Your task to perform on an android device: Do I have any events tomorrow? Image 0: 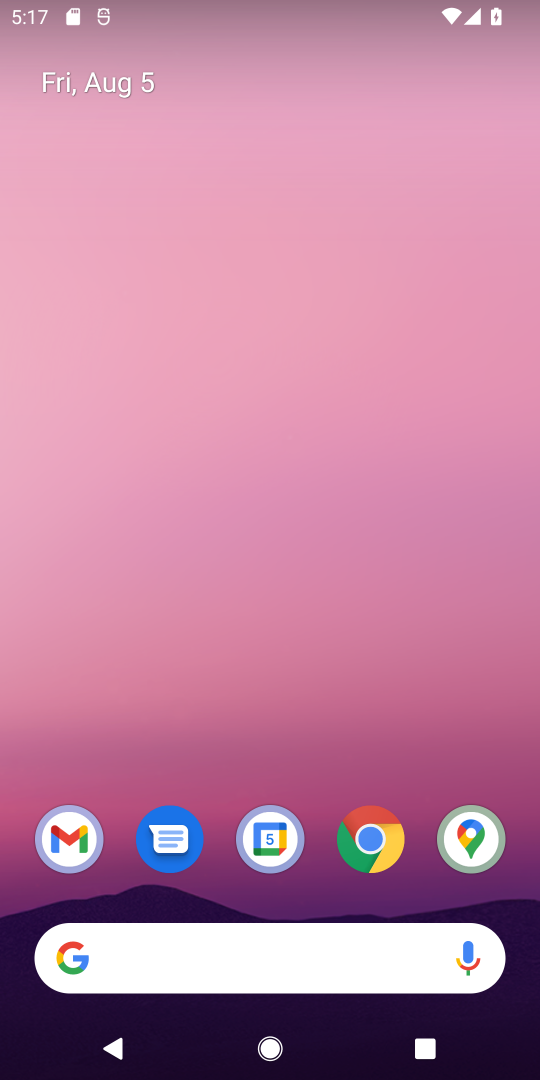
Step 0: click (269, 833)
Your task to perform on an android device: Do I have any events tomorrow? Image 1: 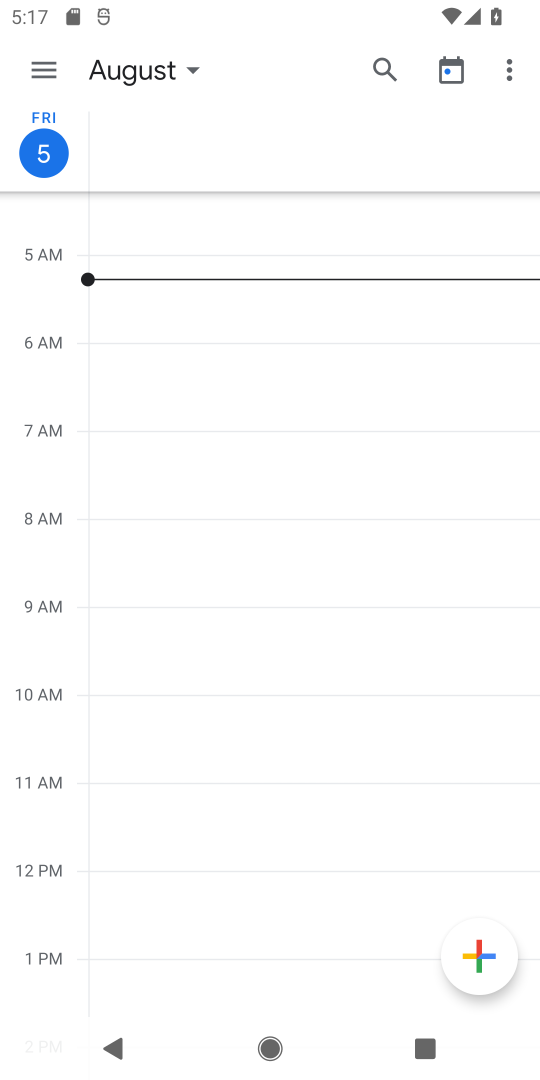
Step 1: click (202, 66)
Your task to perform on an android device: Do I have any events tomorrow? Image 2: 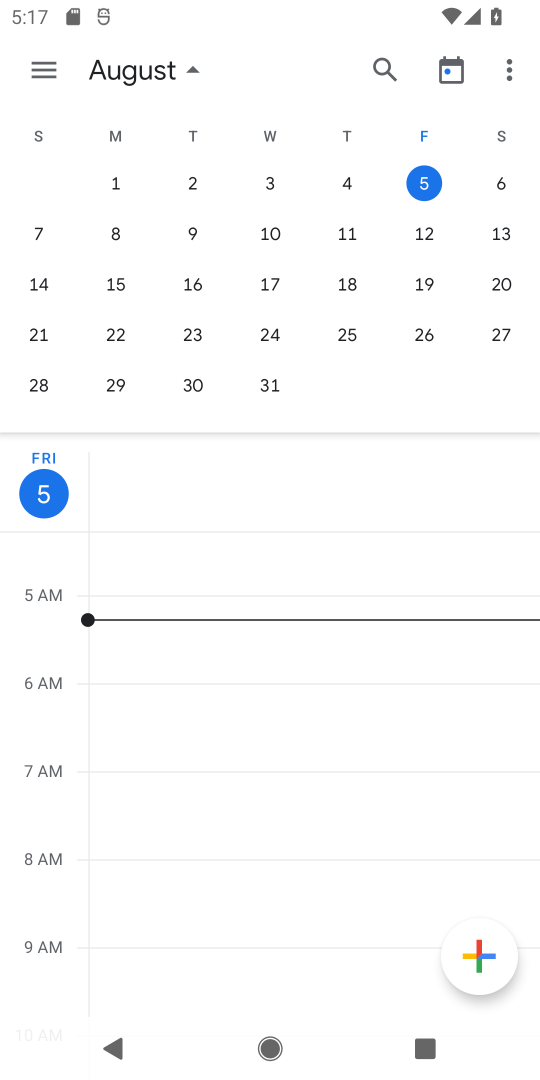
Step 2: click (484, 187)
Your task to perform on an android device: Do I have any events tomorrow? Image 3: 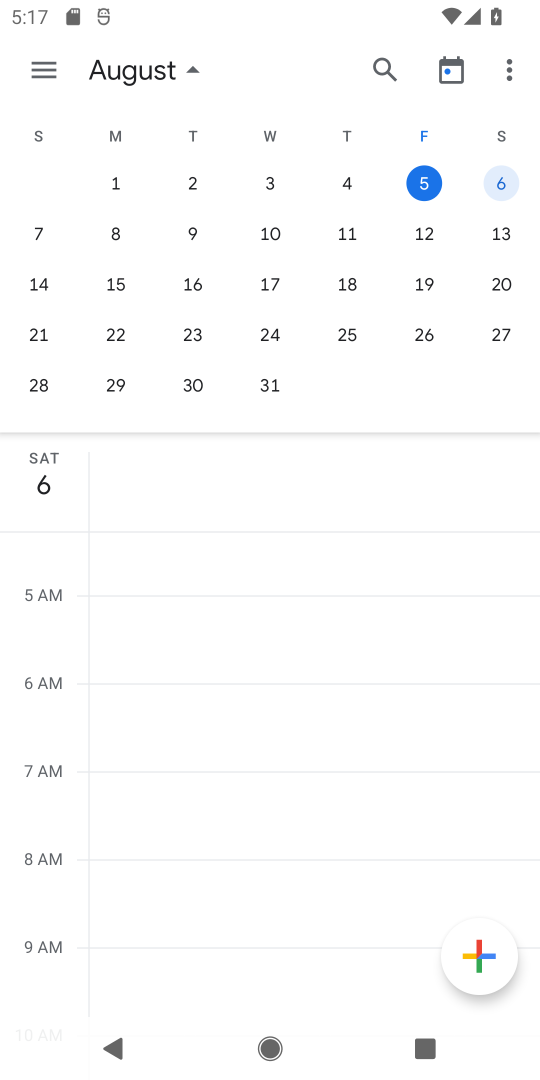
Step 3: click (23, 70)
Your task to perform on an android device: Do I have any events tomorrow? Image 4: 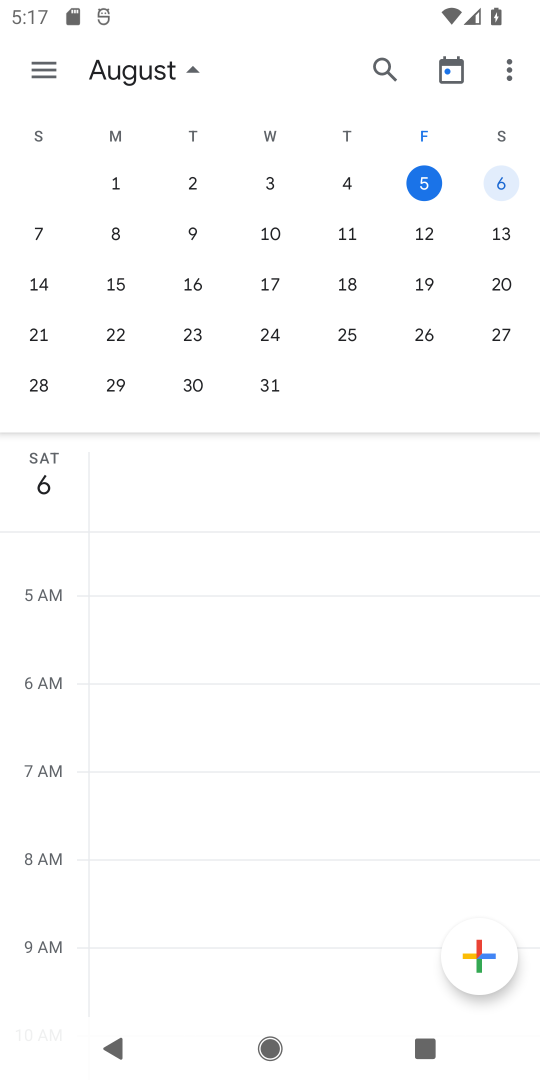
Step 4: click (49, 64)
Your task to perform on an android device: Do I have any events tomorrow? Image 5: 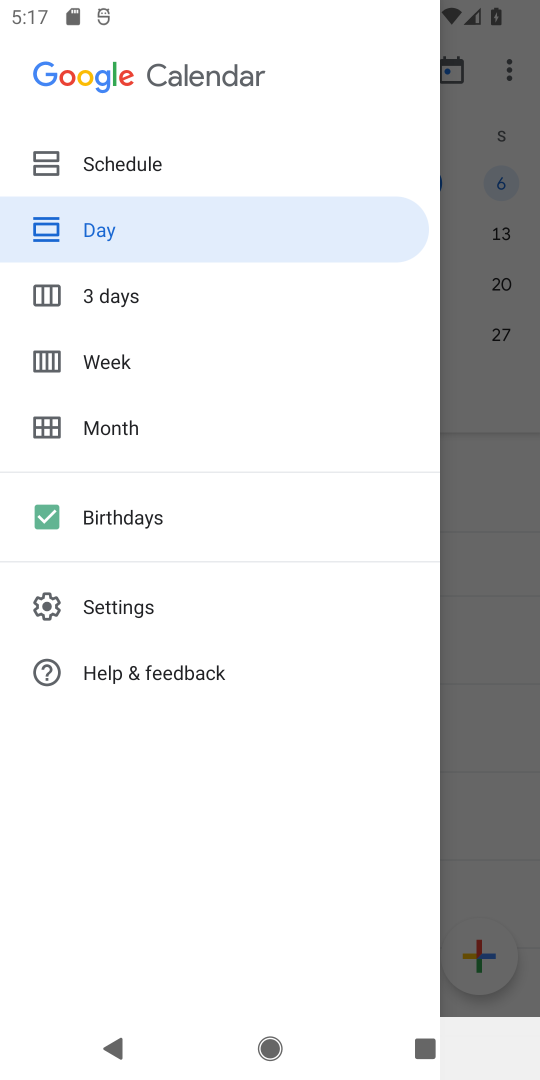
Step 5: click (134, 174)
Your task to perform on an android device: Do I have any events tomorrow? Image 6: 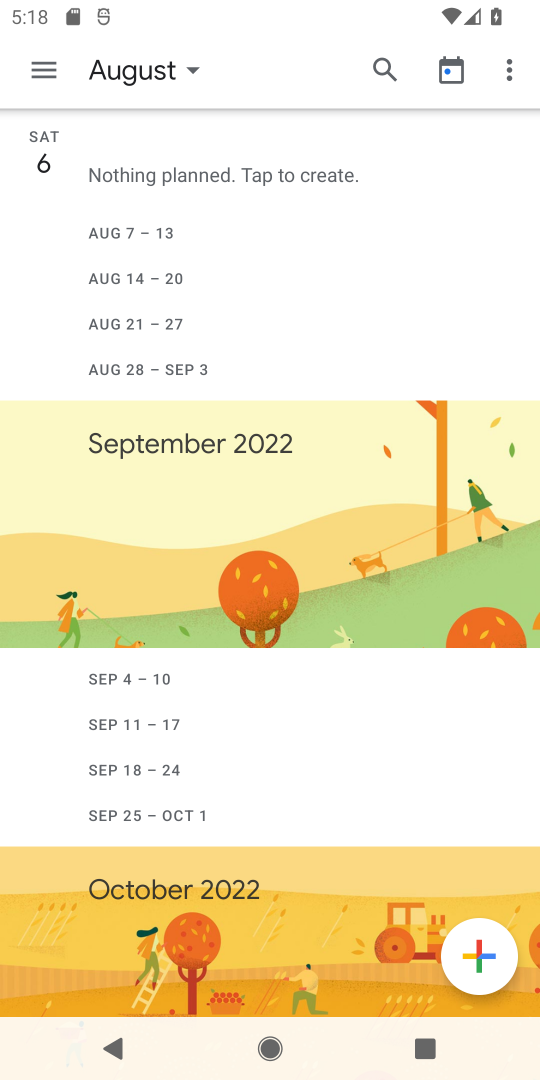
Step 6: task complete